Your task to perform on an android device: Open the Play Movies app and select the watchlist tab. Image 0: 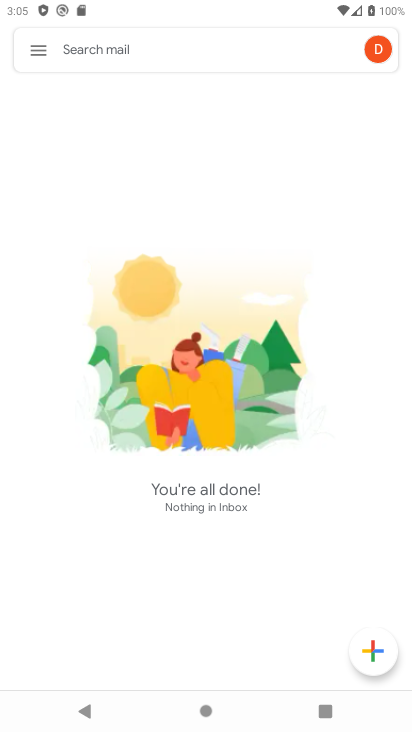
Step 0: press home button
Your task to perform on an android device: Open the Play Movies app and select the watchlist tab. Image 1: 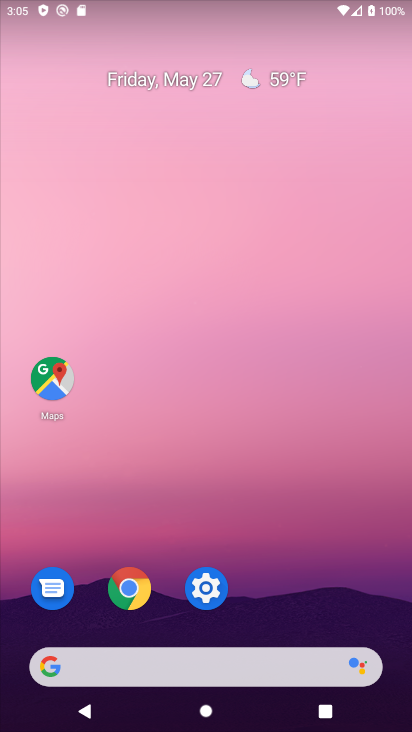
Step 1: drag from (329, 634) to (157, 53)
Your task to perform on an android device: Open the Play Movies app and select the watchlist tab. Image 2: 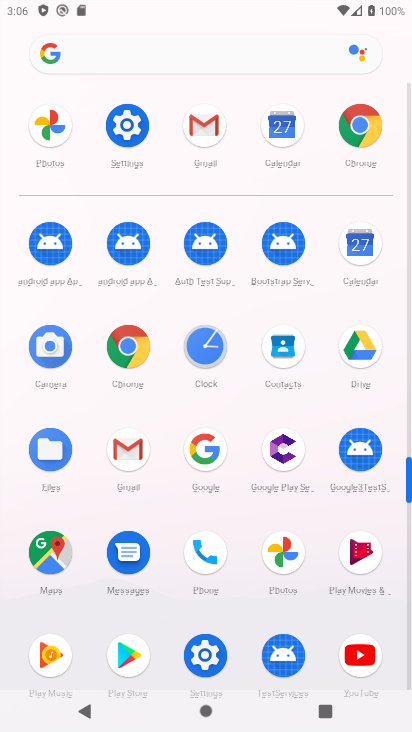
Step 2: click (355, 564)
Your task to perform on an android device: Open the Play Movies app and select the watchlist tab. Image 3: 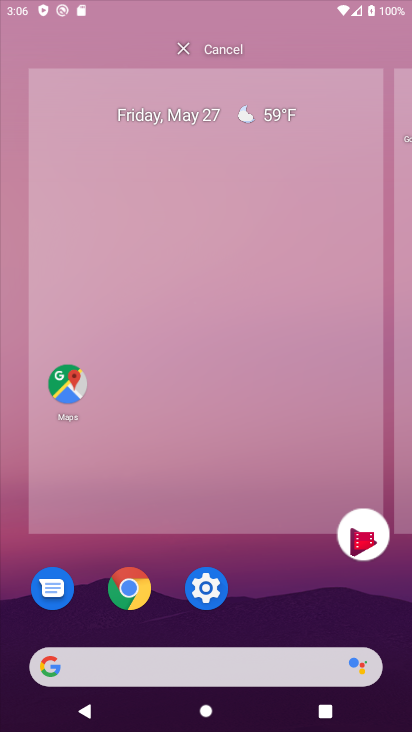
Step 3: click (360, 547)
Your task to perform on an android device: Open the Play Movies app and select the watchlist tab. Image 4: 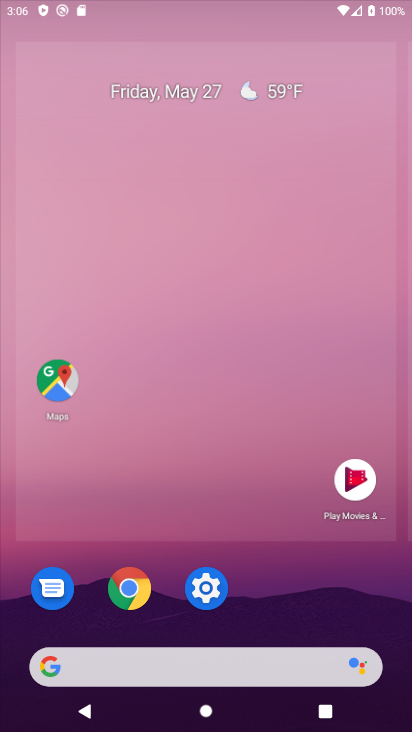
Step 4: click (360, 549)
Your task to perform on an android device: Open the Play Movies app and select the watchlist tab. Image 5: 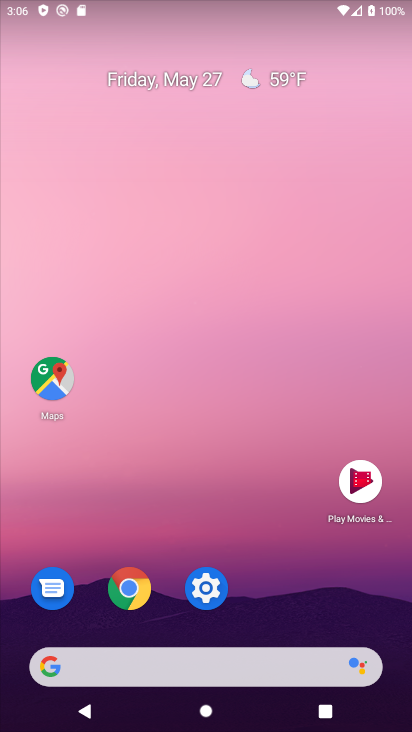
Step 5: click (360, 549)
Your task to perform on an android device: Open the Play Movies app and select the watchlist tab. Image 6: 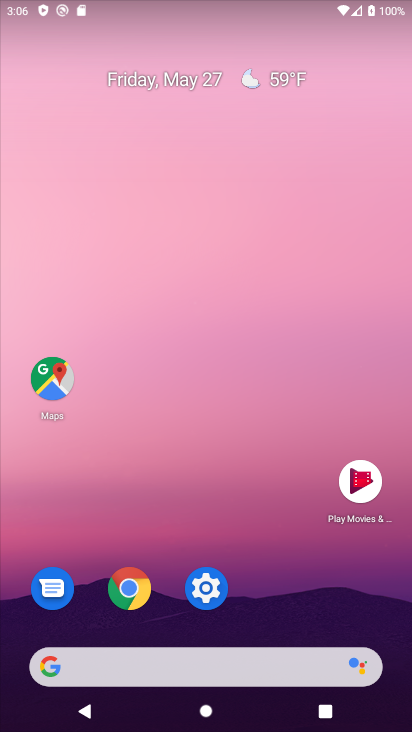
Step 6: click (360, 481)
Your task to perform on an android device: Open the Play Movies app and select the watchlist tab. Image 7: 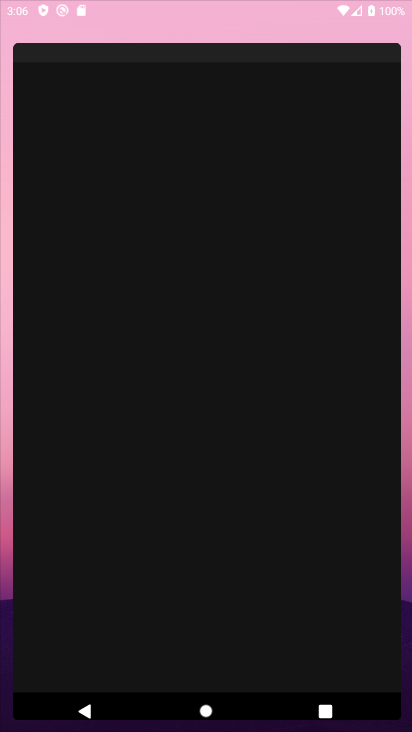
Step 7: click (359, 480)
Your task to perform on an android device: Open the Play Movies app and select the watchlist tab. Image 8: 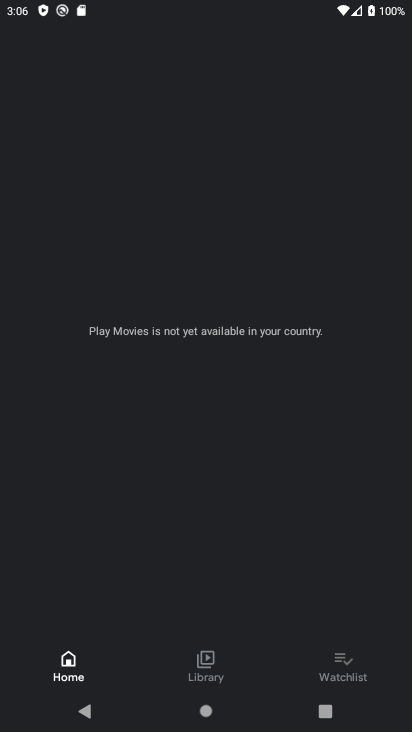
Step 8: click (333, 667)
Your task to perform on an android device: Open the Play Movies app and select the watchlist tab. Image 9: 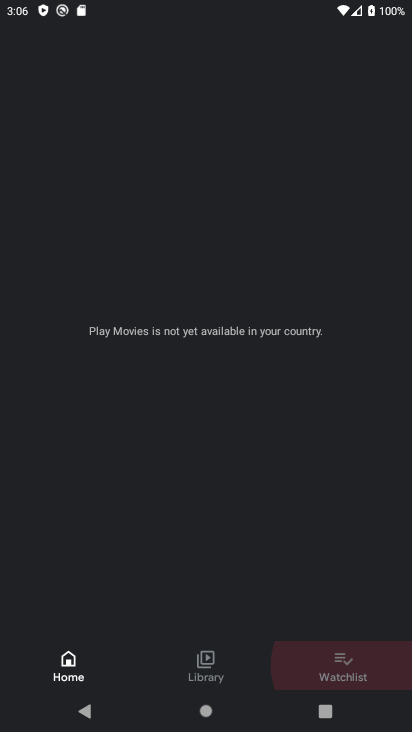
Step 9: click (333, 667)
Your task to perform on an android device: Open the Play Movies app and select the watchlist tab. Image 10: 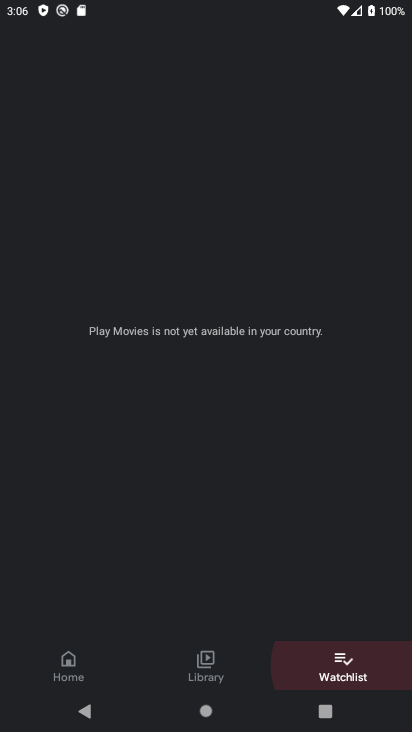
Step 10: click (333, 667)
Your task to perform on an android device: Open the Play Movies app and select the watchlist tab. Image 11: 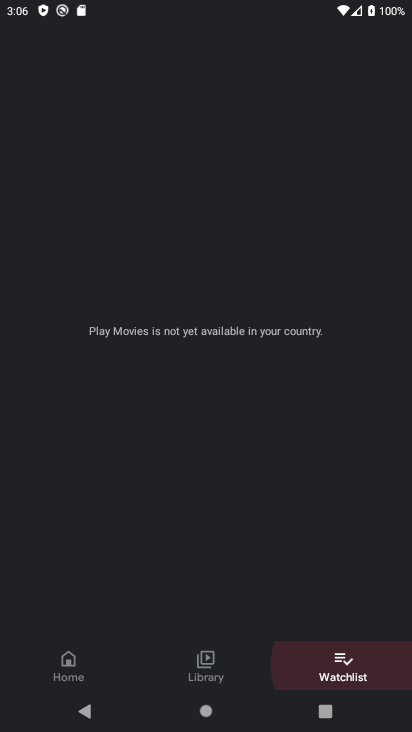
Step 11: click (334, 669)
Your task to perform on an android device: Open the Play Movies app and select the watchlist tab. Image 12: 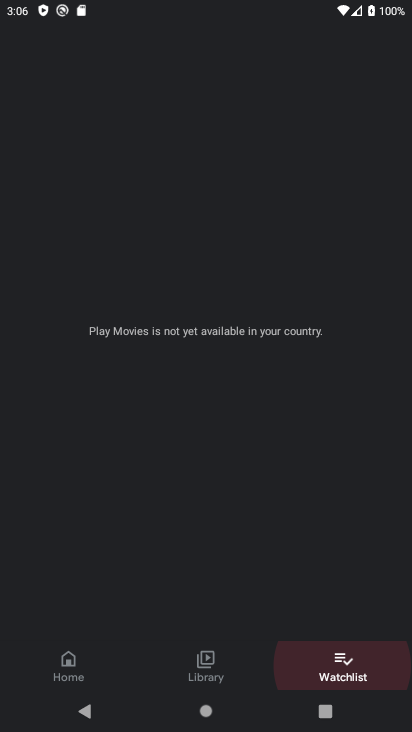
Step 12: click (334, 669)
Your task to perform on an android device: Open the Play Movies app and select the watchlist tab. Image 13: 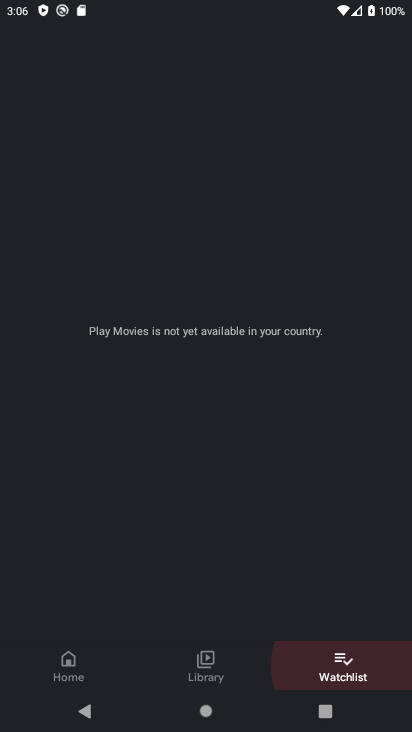
Step 13: click (344, 660)
Your task to perform on an android device: Open the Play Movies app and select the watchlist tab. Image 14: 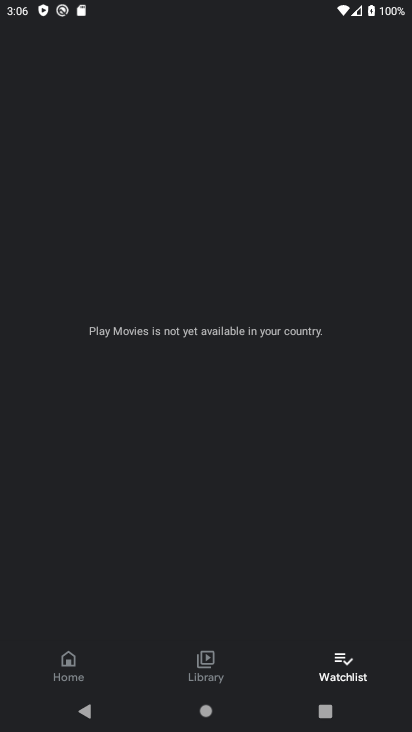
Step 14: task complete